Your task to perform on an android device: Open Chrome and go to settings Image 0: 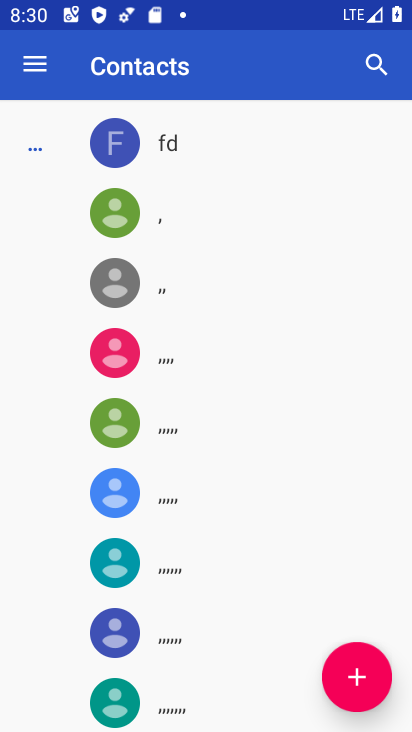
Step 0: press home button
Your task to perform on an android device: Open Chrome and go to settings Image 1: 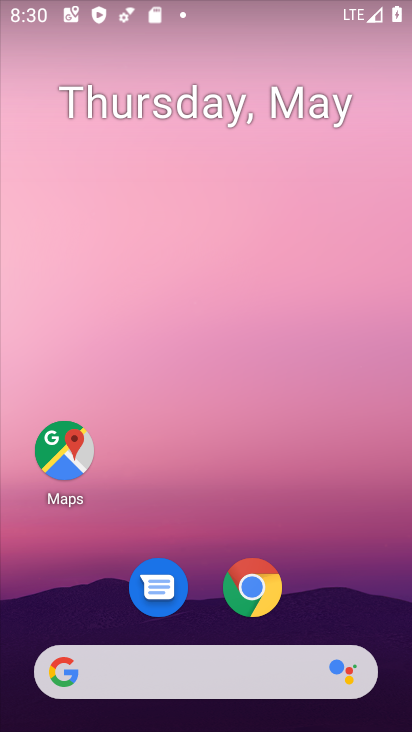
Step 1: click (251, 588)
Your task to perform on an android device: Open Chrome and go to settings Image 2: 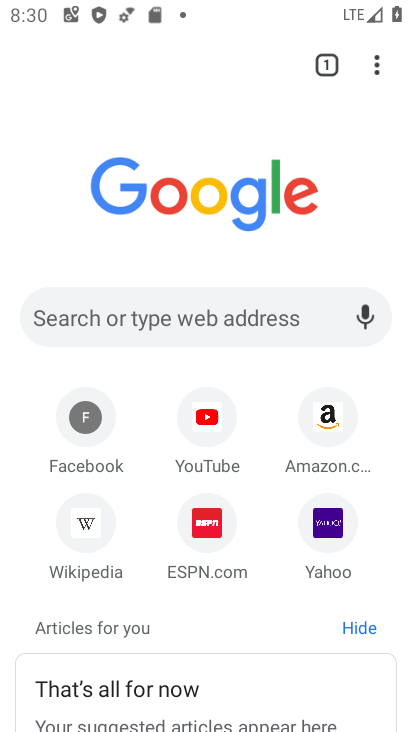
Step 2: click (371, 60)
Your task to perform on an android device: Open Chrome and go to settings Image 3: 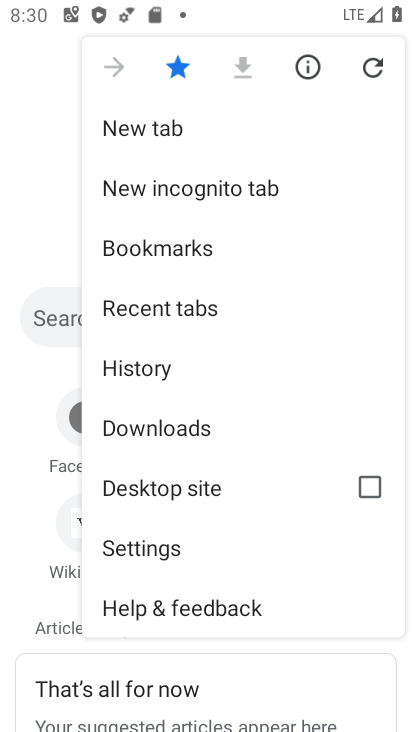
Step 3: click (160, 545)
Your task to perform on an android device: Open Chrome and go to settings Image 4: 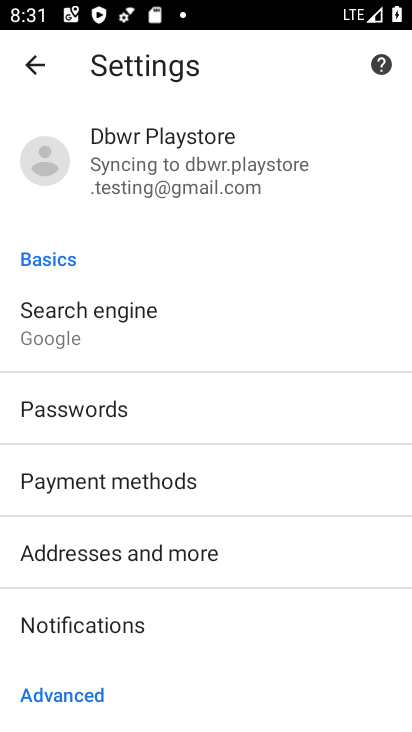
Step 4: task complete